Your task to perform on an android device: set an alarm Image 0: 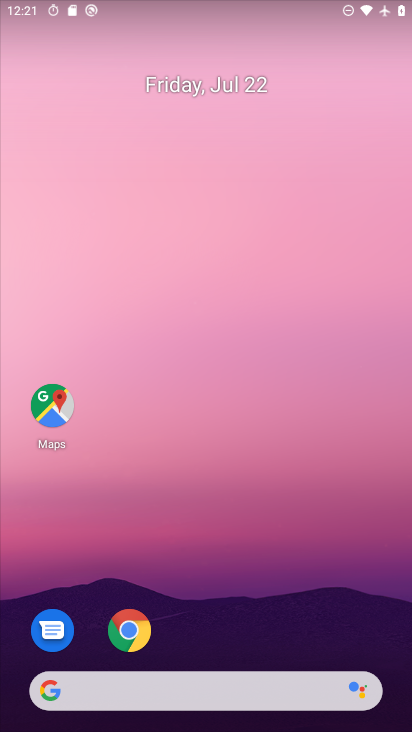
Step 0: drag from (216, 638) to (111, 174)
Your task to perform on an android device: set an alarm Image 1: 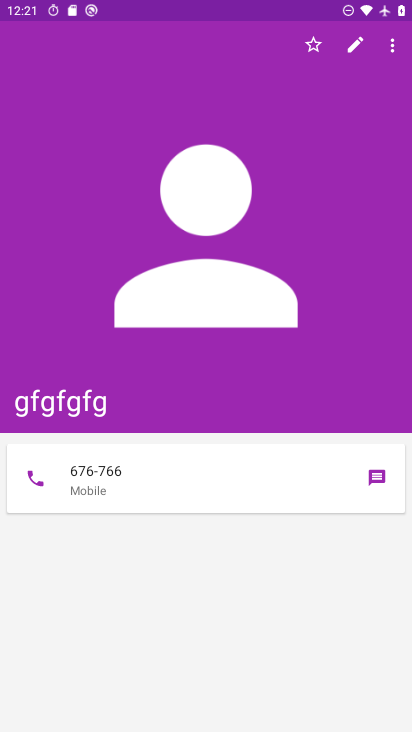
Step 1: press home button
Your task to perform on an android device: set an alarm Image 2: 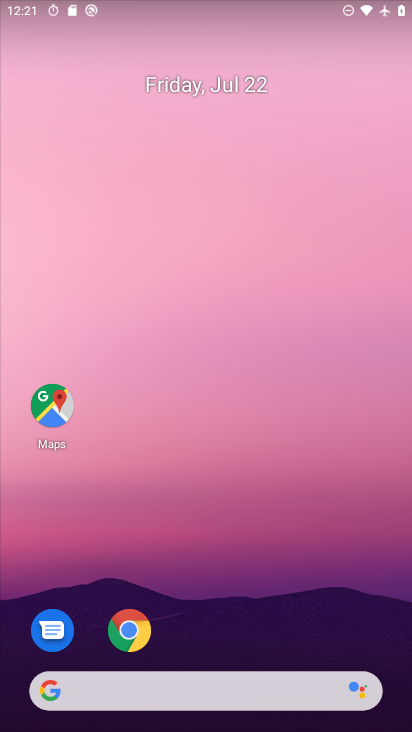
Step 2: drag from (260, 627) to (203, 27)
Your task to perform on an android device: set an alarm Image 3: 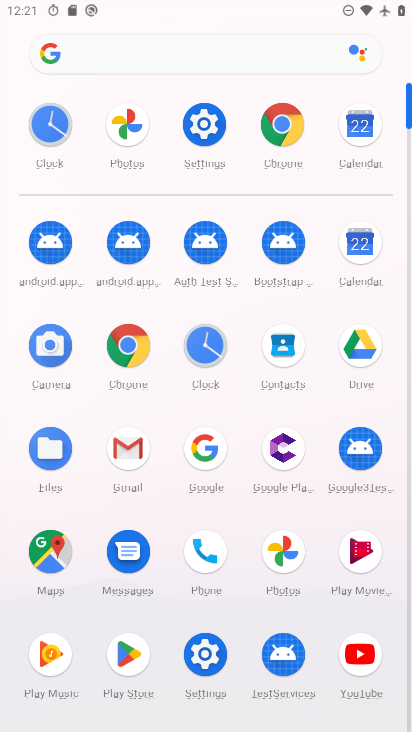
Step 3: click (47, 133)
Your task to perform on an android device: set an alarm Image 4: 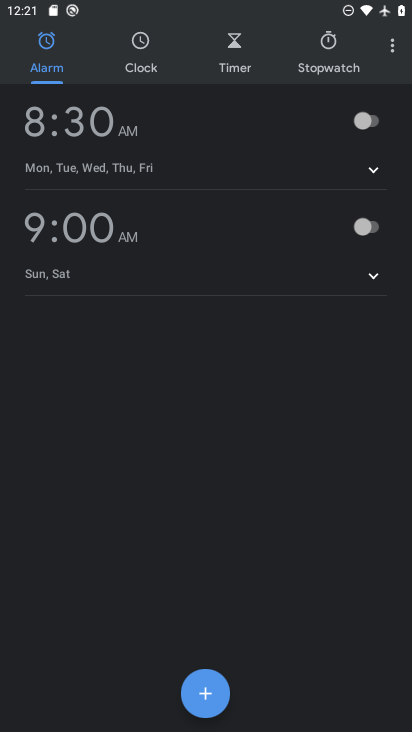
Step 4: click (353, 134)
Your task to perform on an android device: set an alarm Image 5: 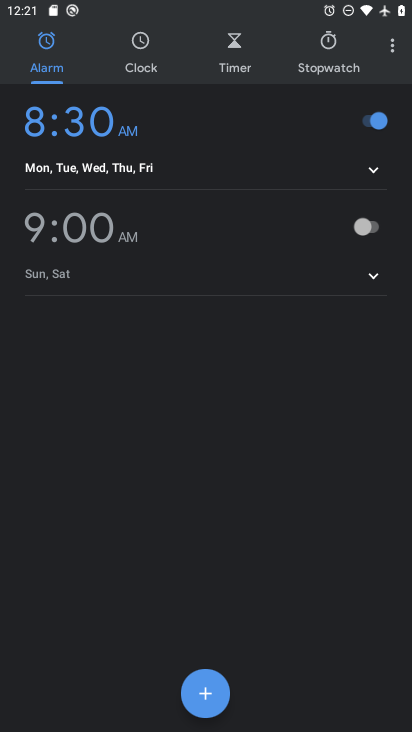
Step 5: task complete